Your task to perform on an android device: Do I have any events this weekend? Image 0: 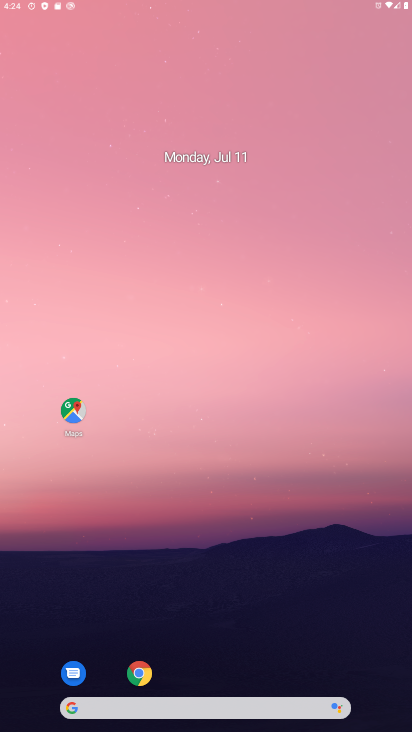
Step 0: drag from (217, 675) to (201, 134)
Your task to perform on an android device: Do I have any events this weekend? Image 1: 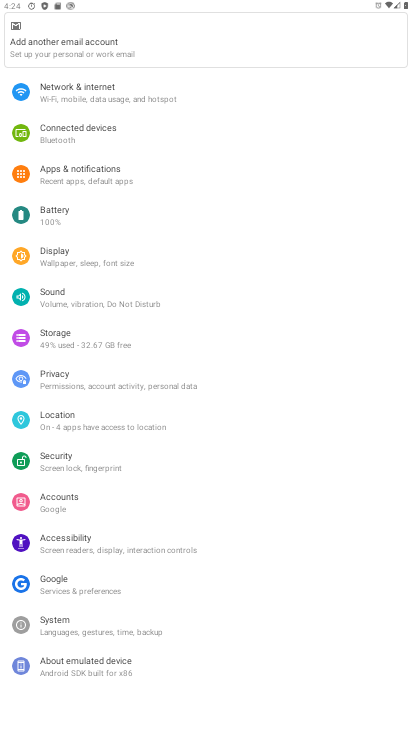
Step 1: press home button
Your task to perform on an android device: Do I have any events this weekend? Image 2: 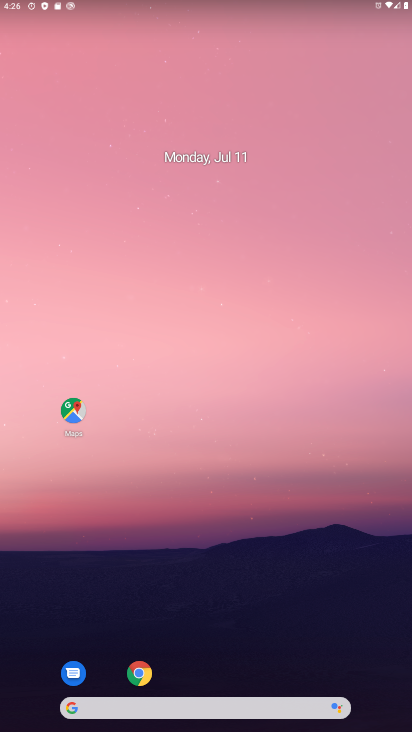
Step 2: drag from (227, 670) to (286, 84)
Your task to perform on an android device: Do I have any events this weekend? Image 3: 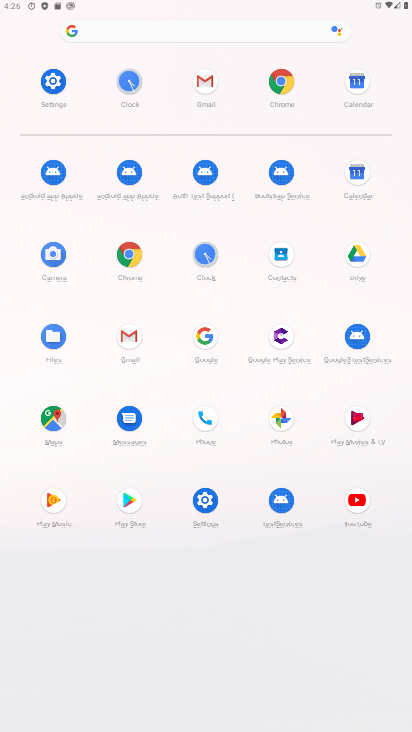
Step 3: click (352, 86)
Your task to perform on an android device: Do I have any events this weekend? Image 4: 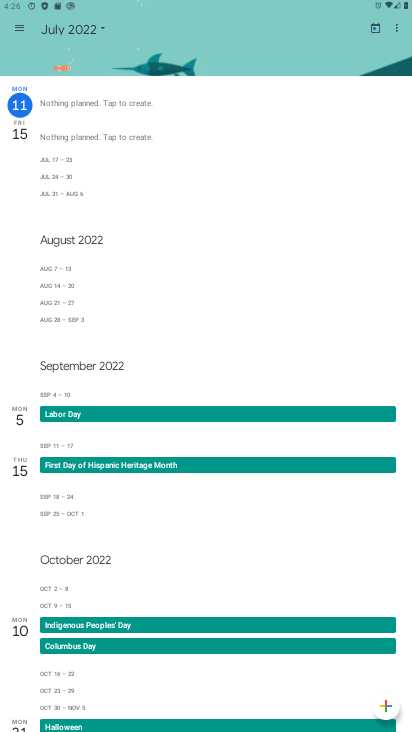
Step 4: task complete